Your task to perform on an android device: turn on sleep mode Image 0: 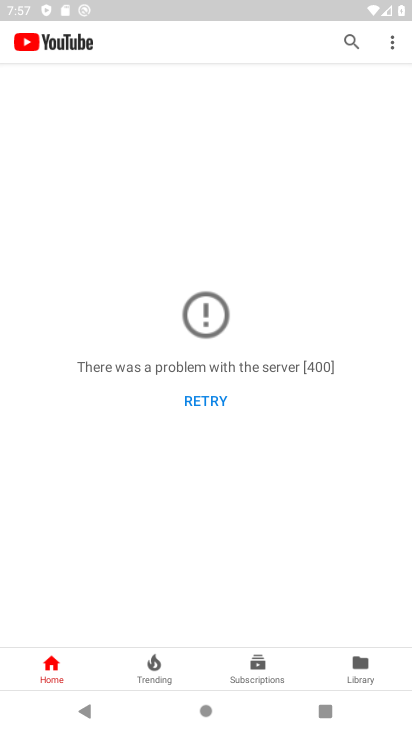
Step 0: press home button
Your task to perform on an android device: turn on sleep mode Image 1: 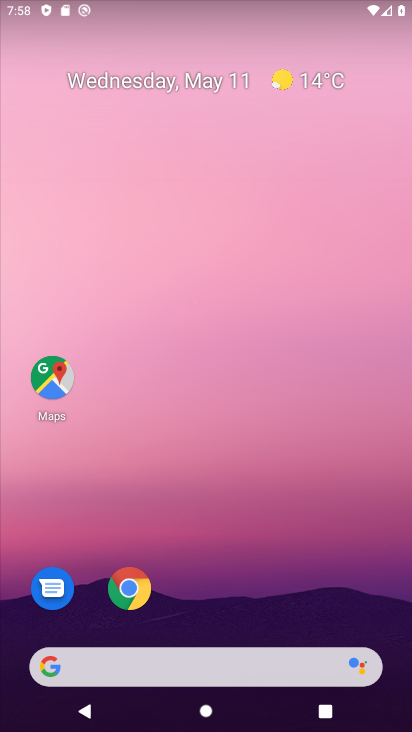
Step 1: drag from (241, 699) to (172, 158)
Your task to perform on an android device: turn on sleep mode Image 2: 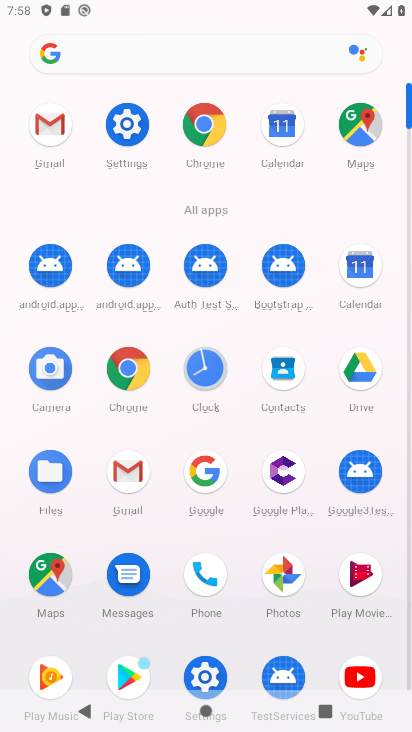
Step 2: click (129, 129)
Your task to perform on an android device: turn on sleep mode Image 3: 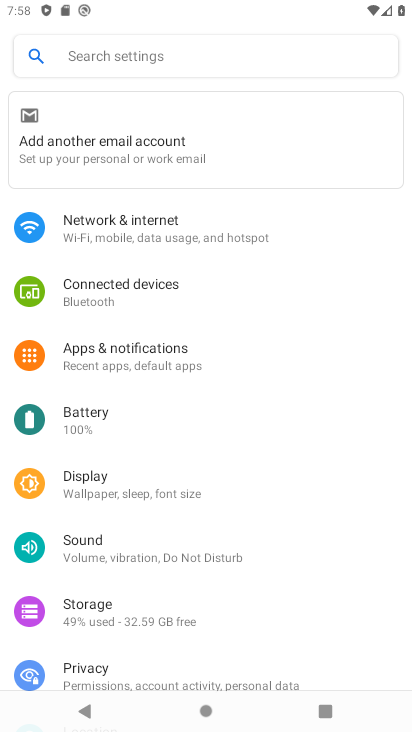
Step 3: click (225, 494)
Your task to perform on an android device: turn on sleep mode Image 4: 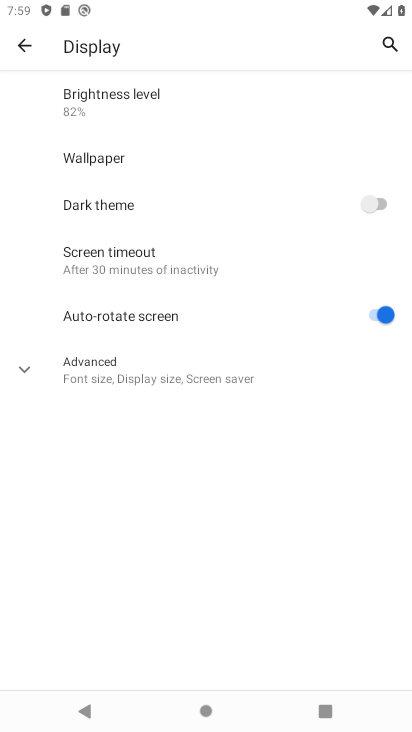
Step 4: task complete